Your task to perform on an android device: Open my contact list Image 0: 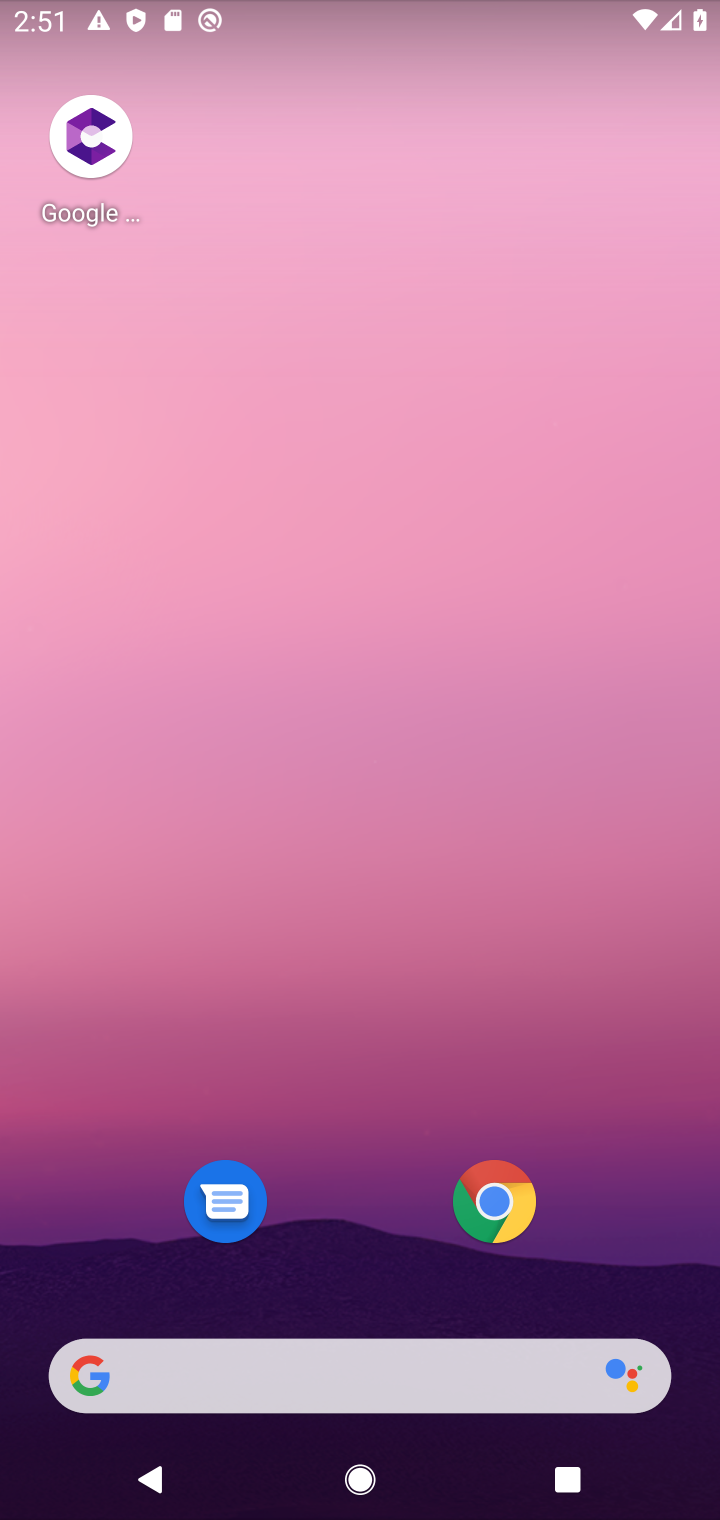
Step 0: drag from (391, 1276) to (476, 196)
Your task to perform on an android device: Open my contact list Image 1: 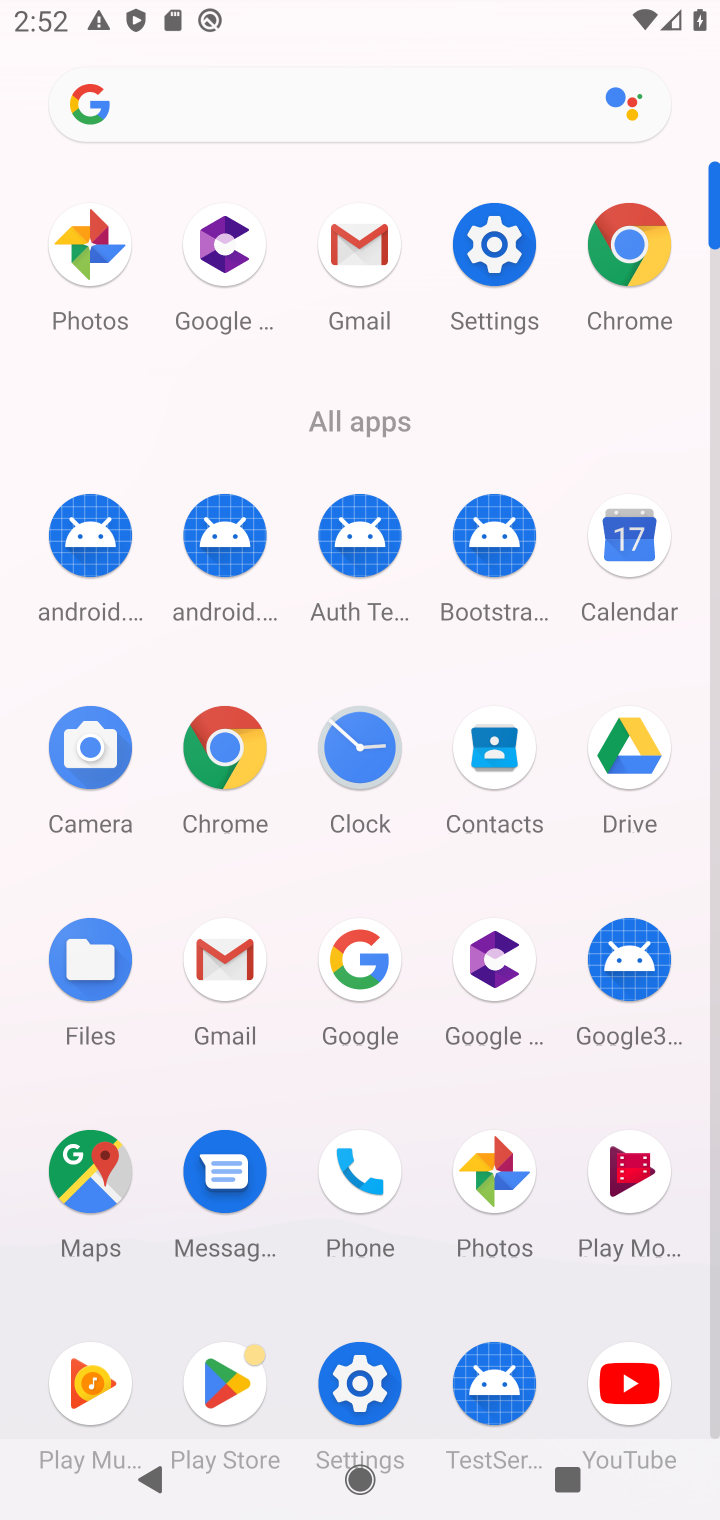
Step 1: click (491, 746)
Your task to perform on an android device: Open my contact list Image 2: 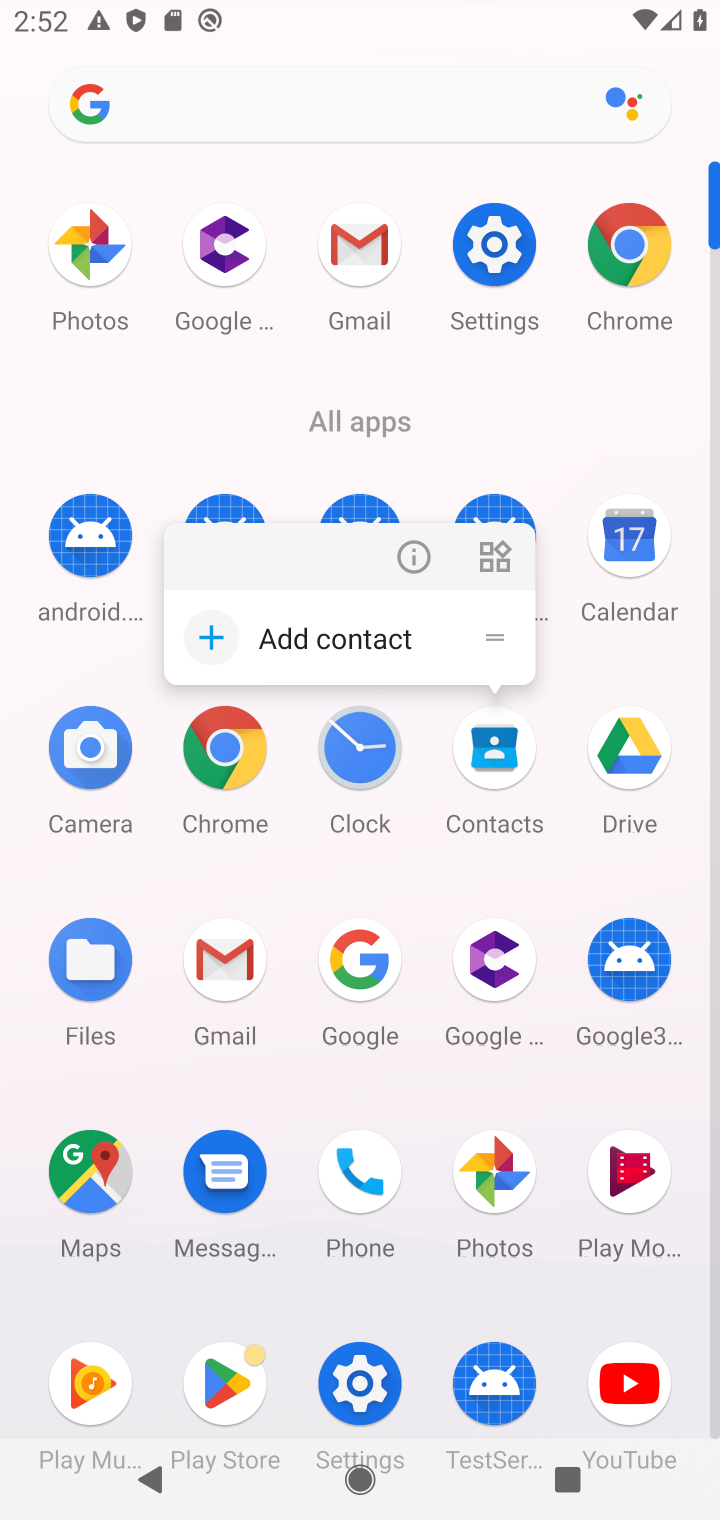
Step 2: click (494, 770)
Your task to perform on an android device: Open my contact list Image 3: 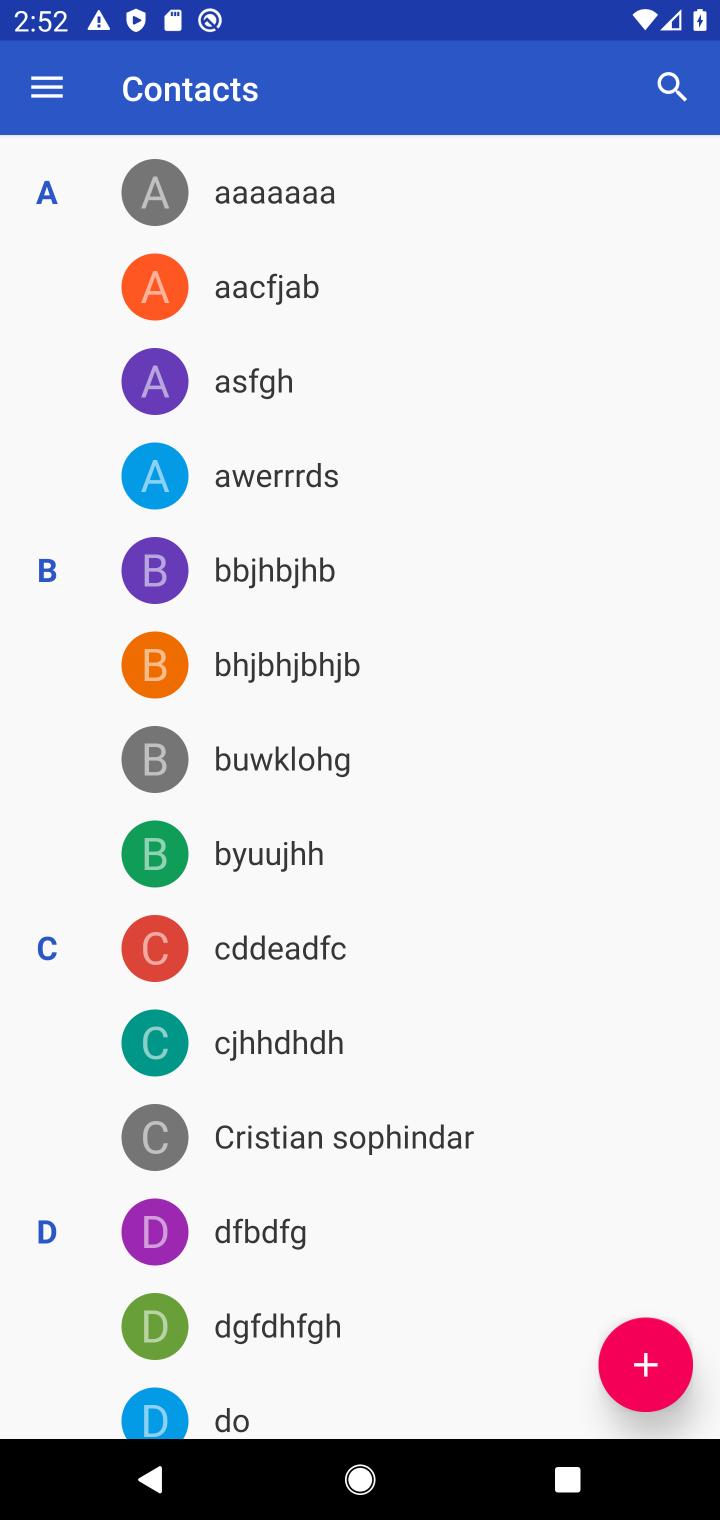
Step 3: task complete